Your task to perform on an android device: Open Chrome and go to the settings page Image 0: 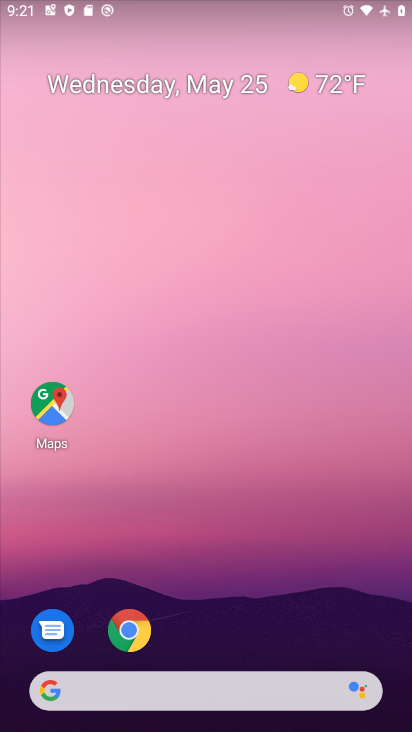
Step 0: click (125, 647)
Your task to perform on an android device: Open Chrome and go to the settings page Image 1: 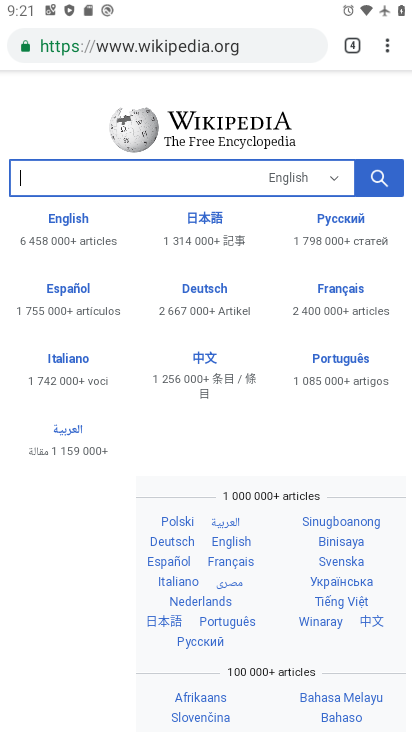
Step 1: task complete